Your task to perform on an android device: snooze an email in the gmail app Image 0: 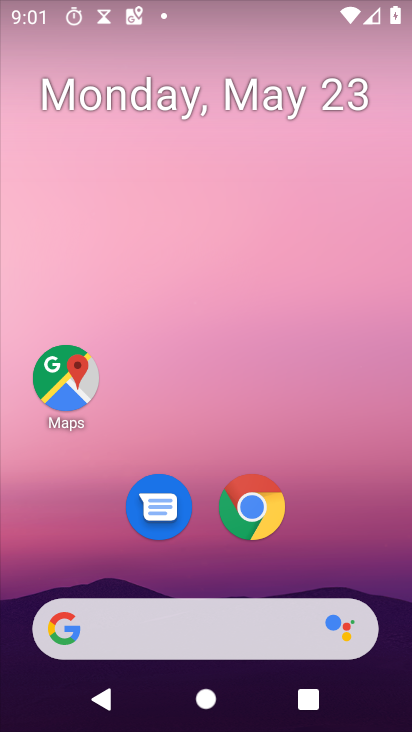
Step 0: drag from (336, 550) to (309, 9)
Your task to perform on an android device: snooze an email in the gmail app Image 1: 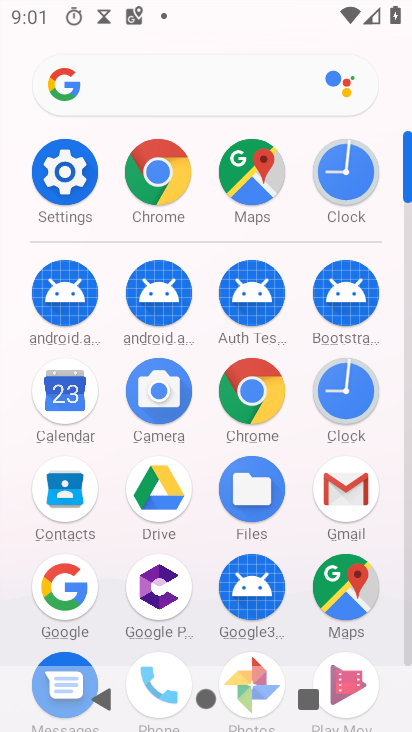
Step 1: click (345, 493)
Your task to perform on an android device: snooze an email in the gmail app Image 2: 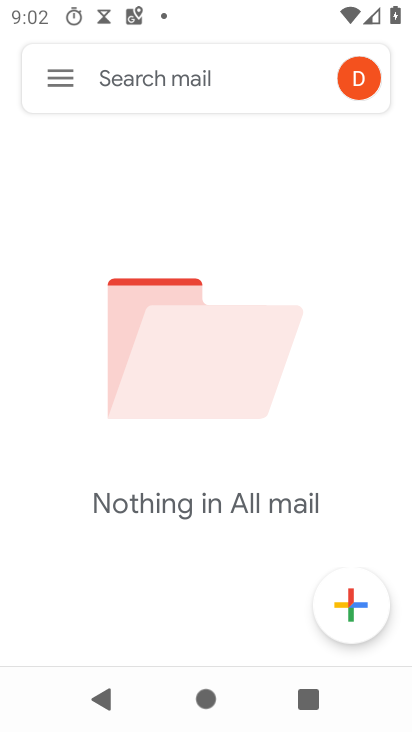
Step 2: click (82, 88)
Your task to perform on an android device: snooze an email in the gmail app Image 3: 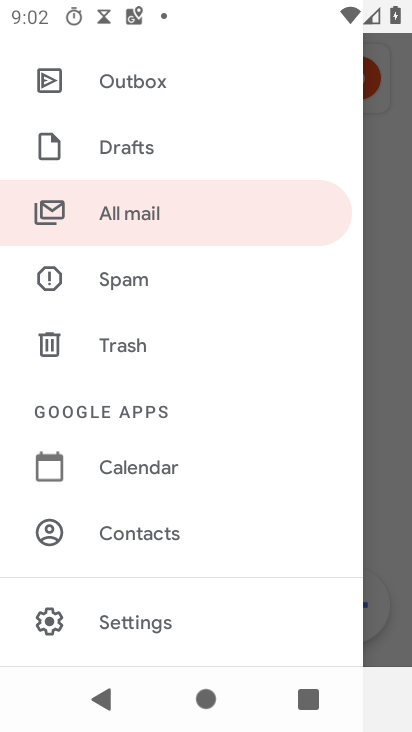
Step 3: drag from (188, 620) to (206, 221)
Your task to perform on an android device: snooze an email in the gmail app Image 4: 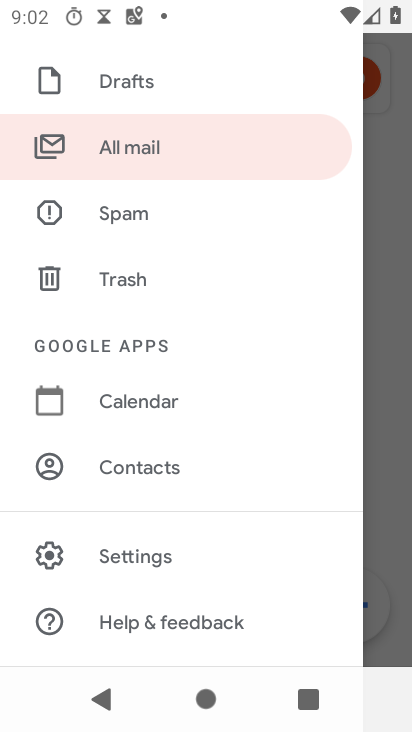
Step 4: click (142, 151)
Your task to perform on an android device: snooze an email in the gmail app Image 5: 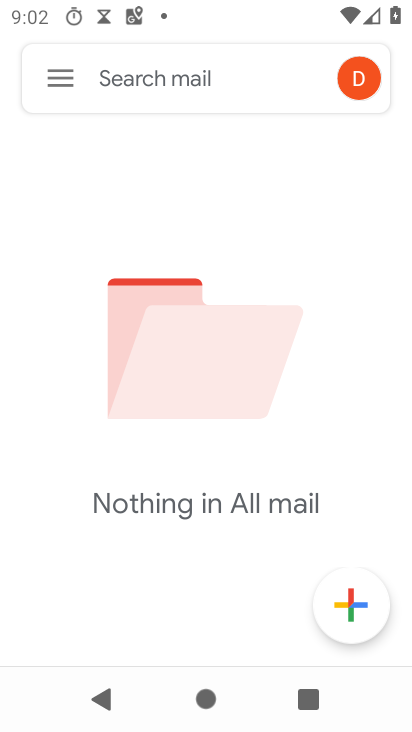
Step 5: task complete